Your task to perform on an android device: Find the nearest electronics store that's open now Image 0: 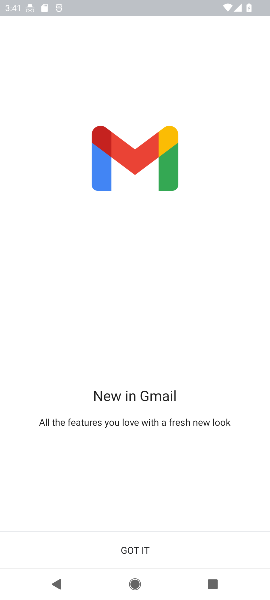
Step 0: press home button
Your task to perform on an android device: Find the nearest electronics store that's open now Image 1: 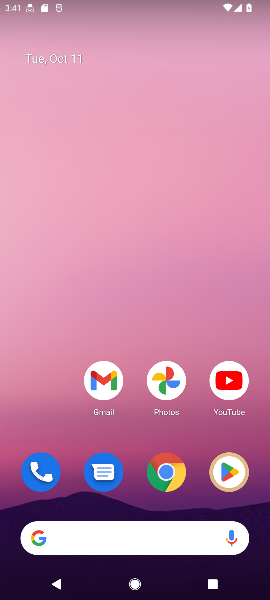
Step 1: click (160, 470)
Your task to perform on an android device: Find the nearest electronics store that's open now Image 2: 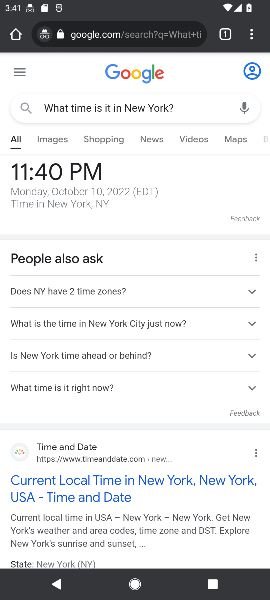
Step 2: click (109, 33)
Your task to perform on an android device: Find the nearest electronics store that's open now Image 3: 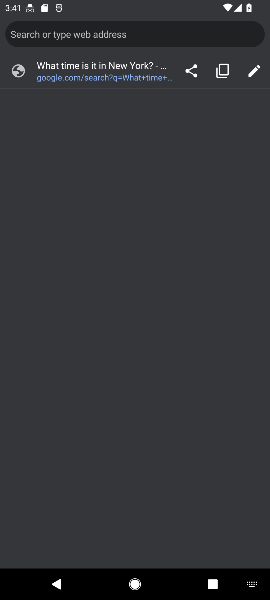
Step 3: type "Find the nearest electronics store that's open now"
Your task to perform on an android device: Find the nearest electronics store that's open now Image 4: 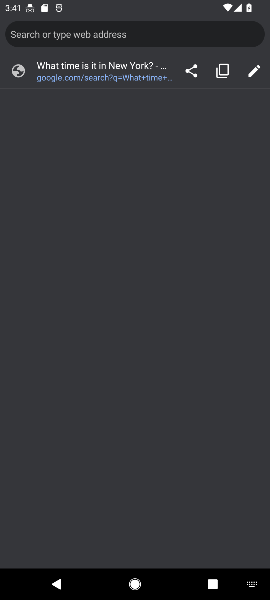
Step 4: click (178, 36)
Your task to perform on an android device: Find the nearest electronics store that's open now Image 5: 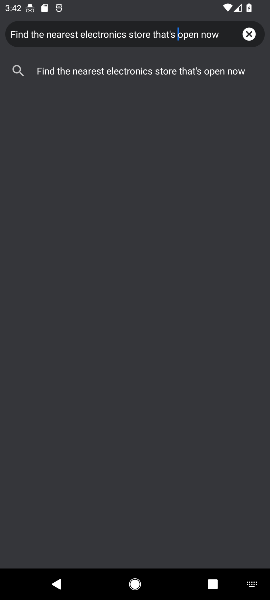
Step 5: click (177, 72)
Your task to perform on an android device: Find the nearest electronics store that's open now Image 6: 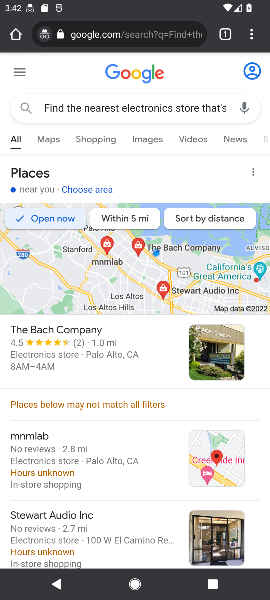
Step 6: task complete